Your task to perform on an android device: open sync settings in chrome Image 0: 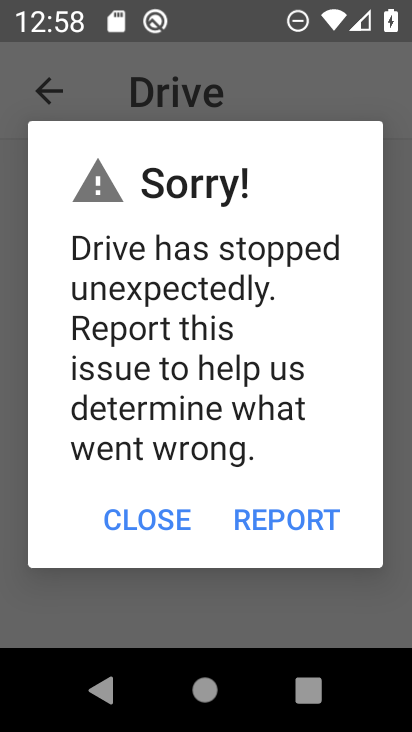
Step 0: press home button
Your task to perform on an android device: open sync settings in chrome Image 1: 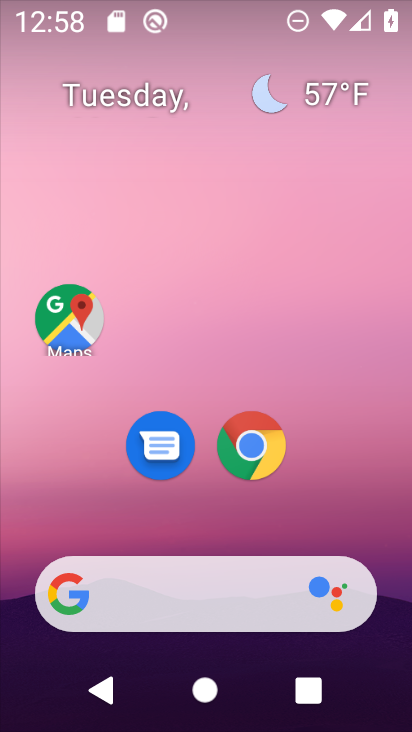
Step 1: drag from (369, 532) to (391, 202)
Your task to perform on an android device: open sync settings in chrome Image 2: 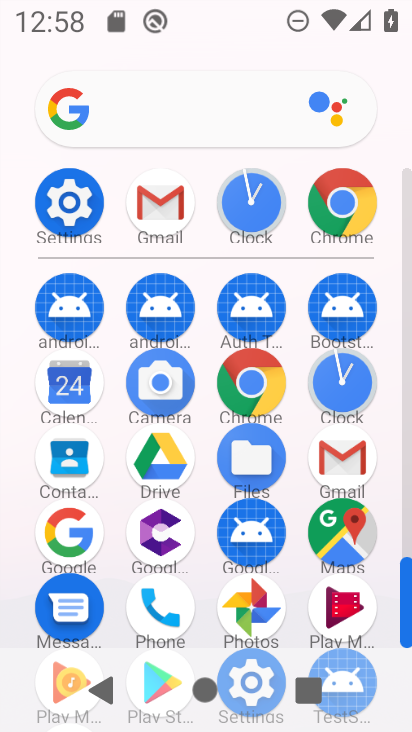
Step 2: click (249, 390)
Your task to perform on an android device: open sync settings in chrome Image 3: 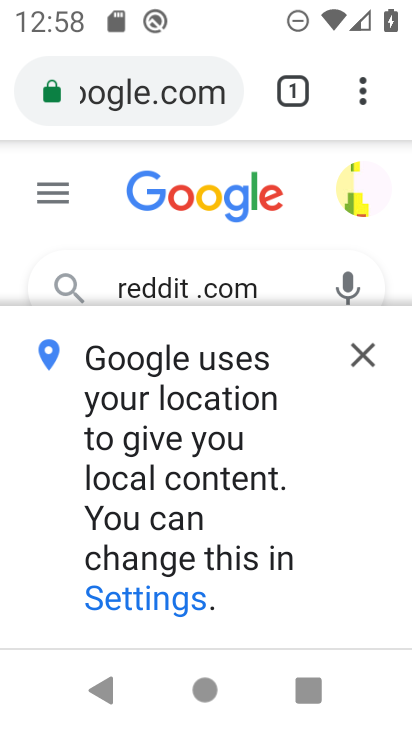
Step 3: click (360, 97)
Your task to perform on an android device: open sync settings in chrome Image 4: 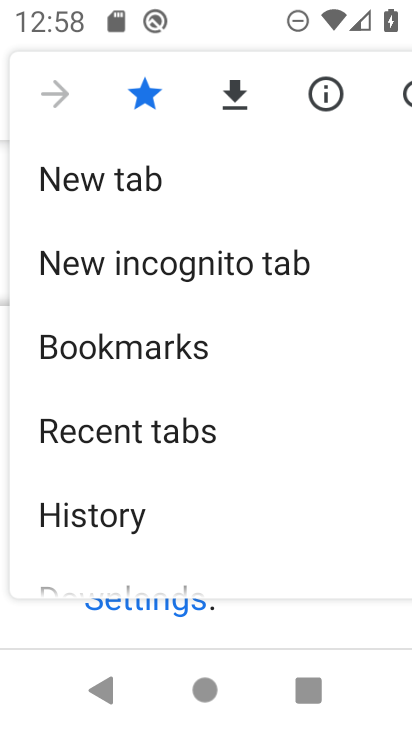
Step 4: drag from (353, 410) to (350, 305)
Your task to perform on an android device: open sync settings in chrome Image 5: 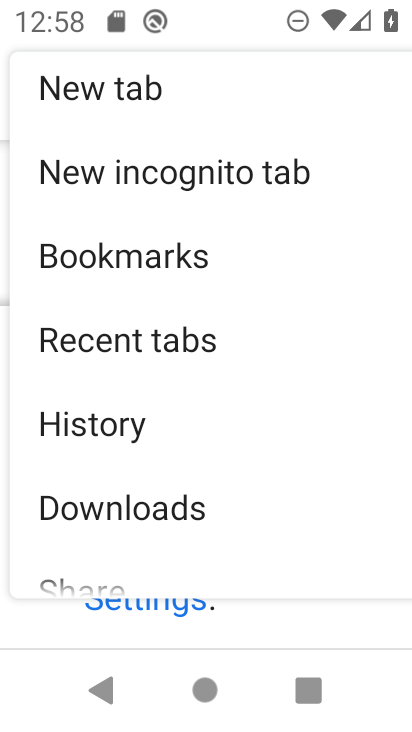
Step 5: drag from (333, 449) to (345, 330)
Your task to perform on an android device: open sync settings in chrome Image 6: 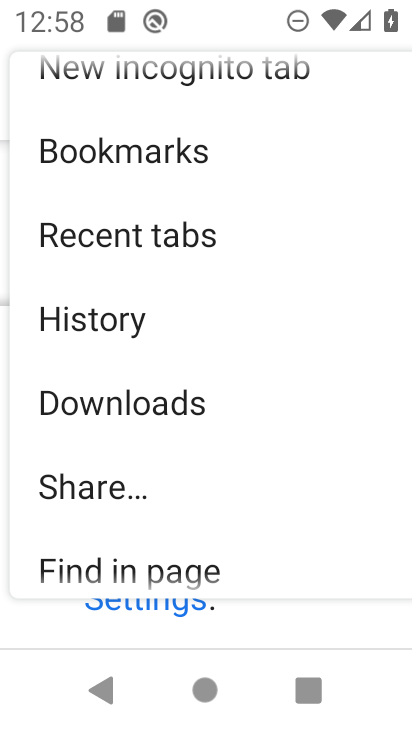
Step 6: drag from (313, 497) to (316, 383)
Your task to perform on an android device: open sync settings in chrome Image 7: 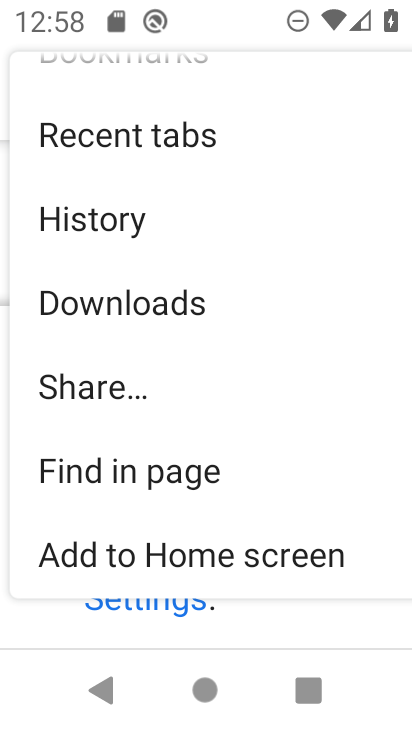
Step 7: drag from (299, 512) to (315, 347)
Your task to perform on an android device: open sync settings in chrome Image 8: 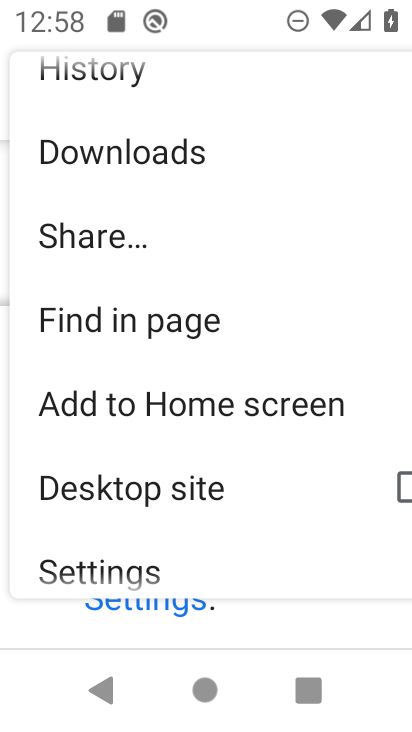
Step 8: drag from (290, 483) to (278, 324)
Your task to perform on an android device: open sync settings in chrome Image 9: 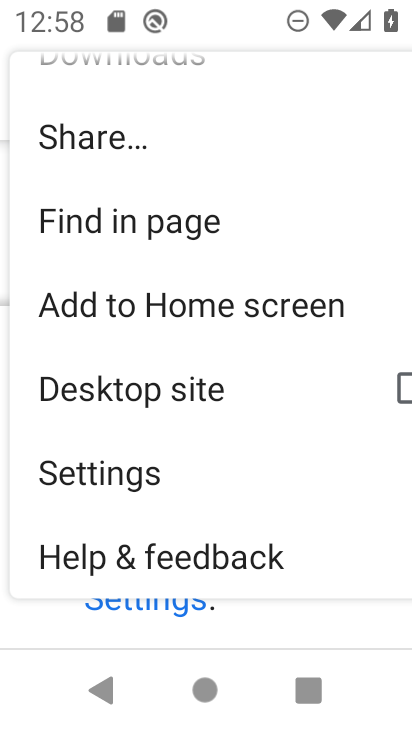
Step 9: click (144, 487)
Your task to perform on an android device: open sync settings in chrome Image 10: 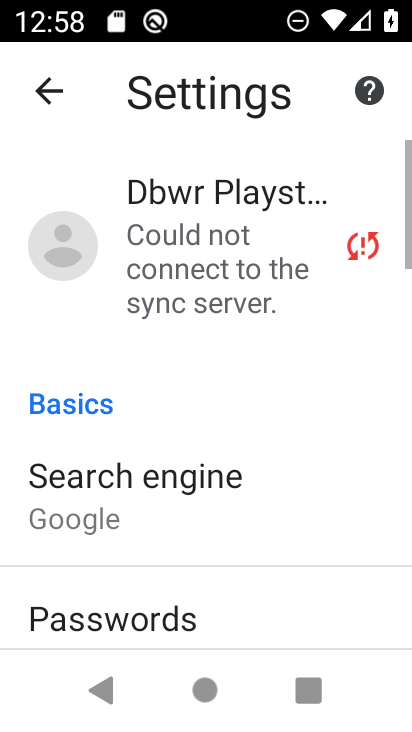
Step 10: drag from (313, 537) to (336, 419)
Your task to perform on an android device: open sync settings in chrome Image 11: 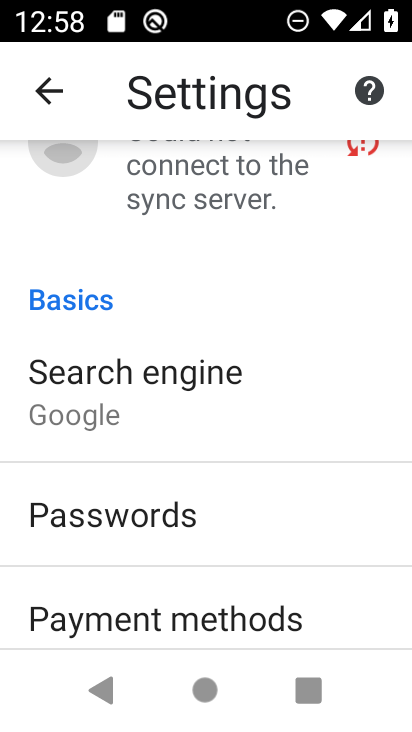
Step 11: drag from (326, 535) to (336, 439)
Your task to perform on an android device: open sync settings in chrome Image 12: 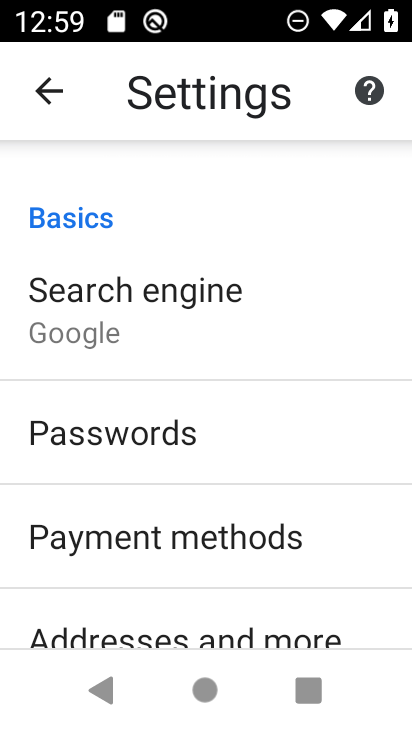
Step 12: drag from (353, 587) to (348, 475)
Your task to perform on an android device: open sync settings in chrome Image 13: 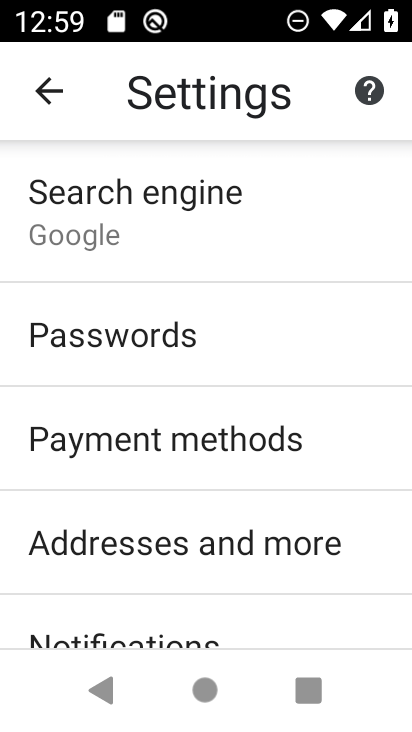
Step 13: drag from (353, 592) to (363, 492)
Your task to perform on an android device: open sync settings in chrome Image 14: 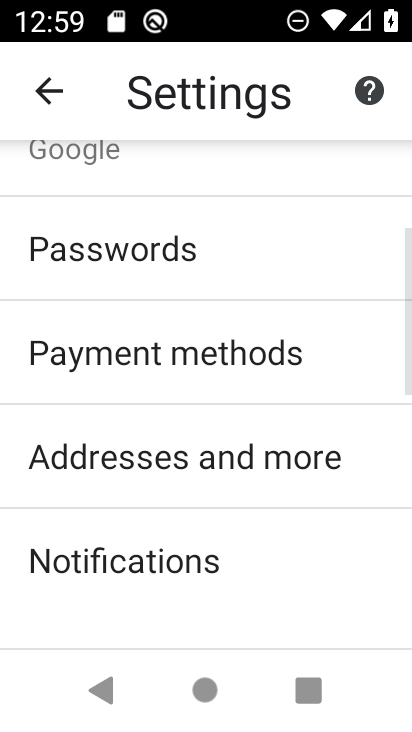
Step 14: drag from (355, 589) to (368, 488)
Your task to perform on an android device: open sync settings in chrome Image 15: 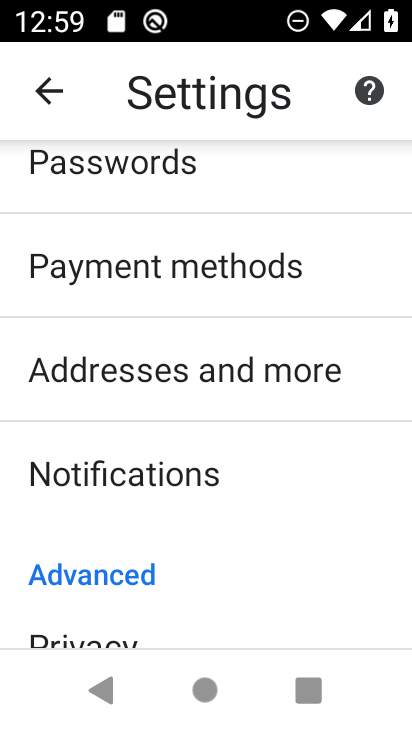
Step 15: drag from (366, 533) to (377, 424)
Your task to perform on an android device: open sync settings in chrome Image 16: 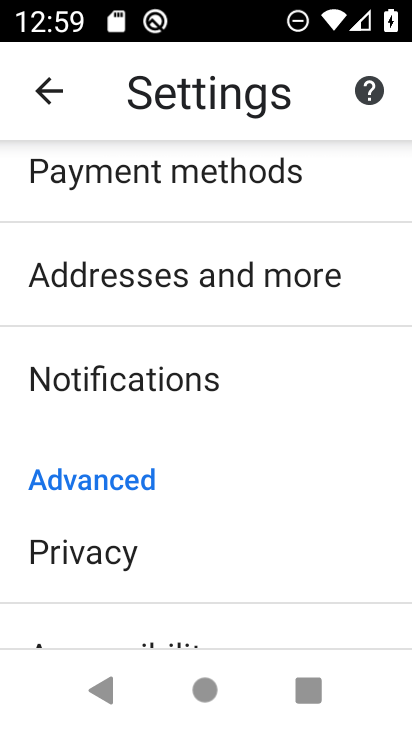
Step 16: drag from (356, 549) to (351, 441)
Your task to perform on an android device: open sync settings in chrome Image 17: 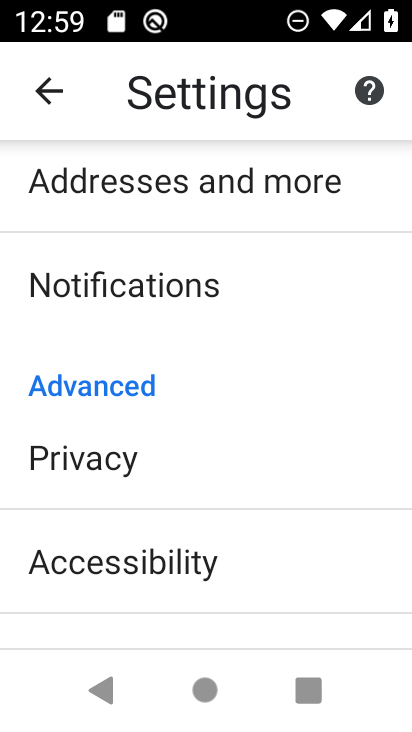
Step 17: drag from (364, 590) to (370, 468)
Your task to perform on an android device: open sync settings in chrome Image 18: 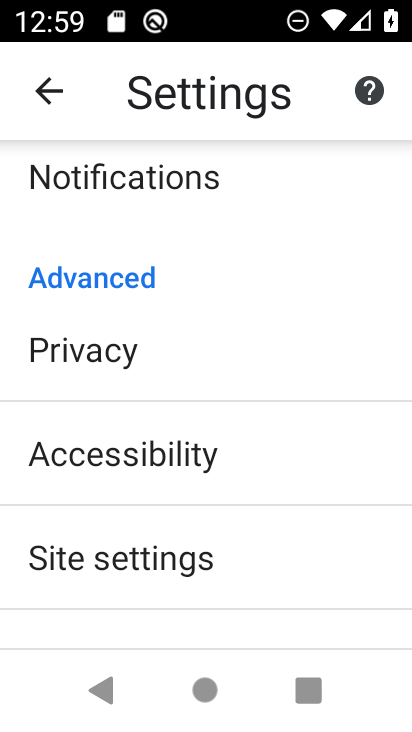
Step 18: drag from (349, 613) to (339, 476)
Your task to perform on an android device: open sync settings in chrome Image 19: 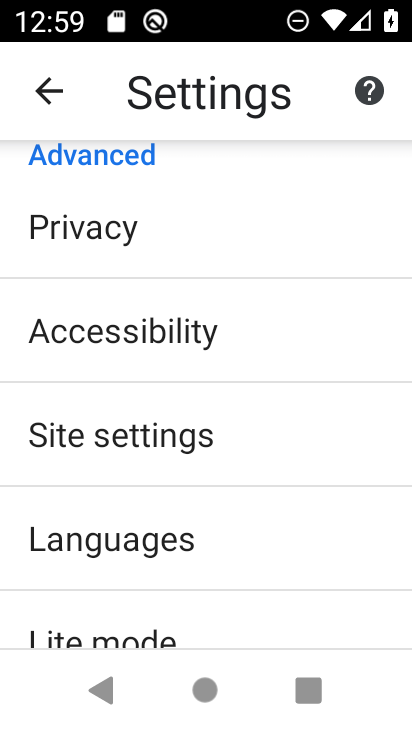
Step 19: click (289, 460)
Your task to perform on an android device: open sync settings in chrome Image 20: 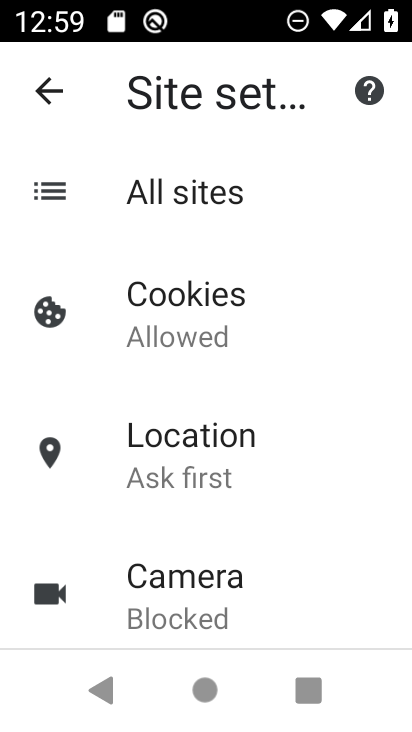
Step 20: drag from (354, 559) to (367, 451)
Your task to perform on an android device: open sync settings in chrome Image 21: 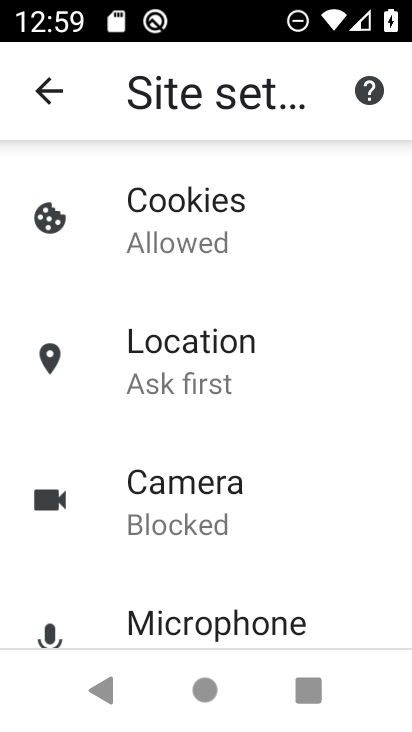
Step 21: drag from (362, 583) to (372, 473)
Your task to perform on an android device: open sync settings in chrome Image 22: 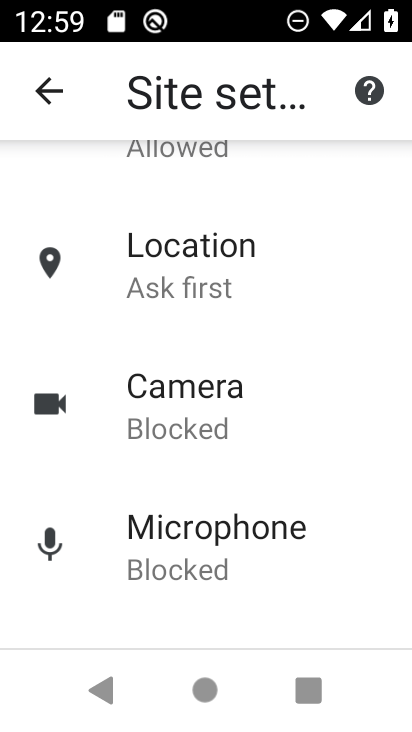
Step 22: drag from (372, 598) to (370, 478)
Your task to perform on an android device: open sync settings in chrome Image 23: 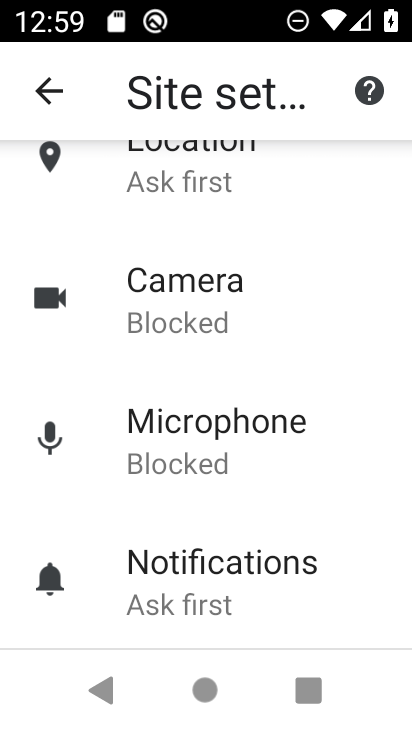
Step 23: drag from (359, 605) to (368, 483)
Your task to perform on an android device: open sync settings in chrome Image 24: 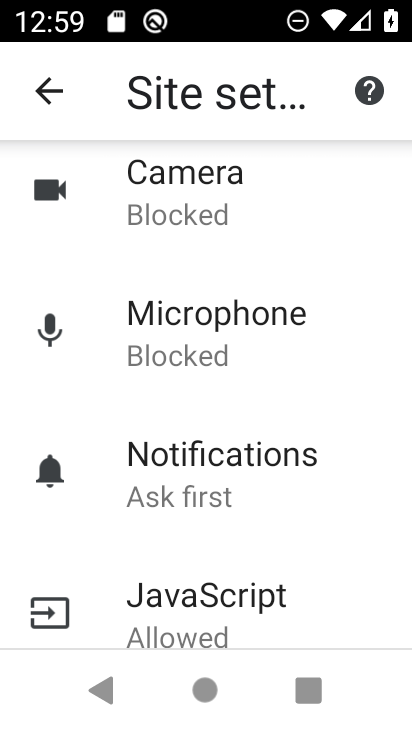
Step 24: drag from (359, 596) to (370, 487)
Your task to perform on an android device: open sync settings in chrome Image 25: 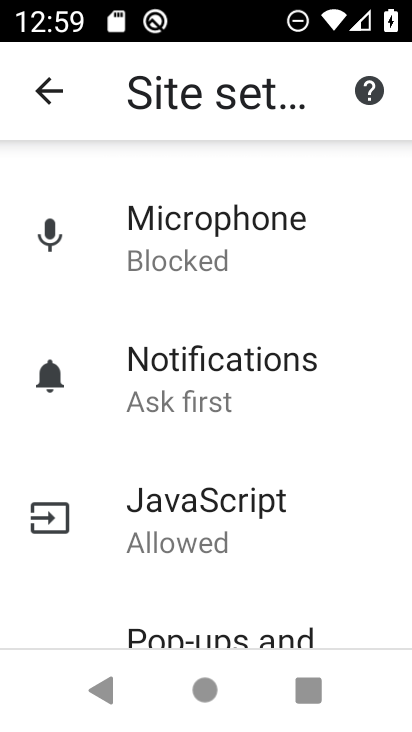
Step 25: drag from (372, 564) to (375, 468)
Your task to perform on an android device: open sync settings in chrome Image 26: 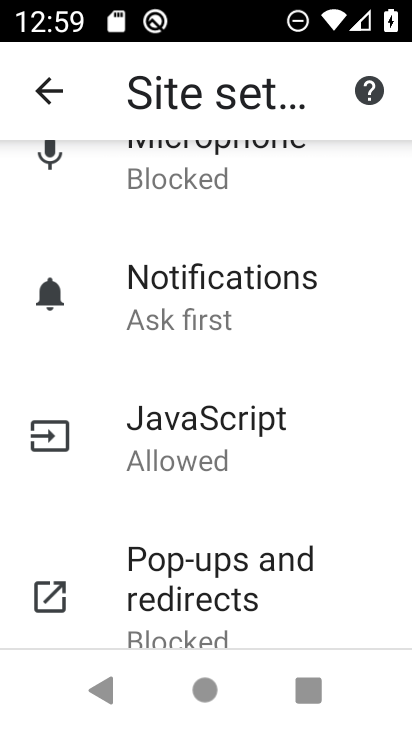
Step 26: drag from (376, 602) to (372, 485)
Your task to perform on an android device: open sync settings in chrome Image 27: 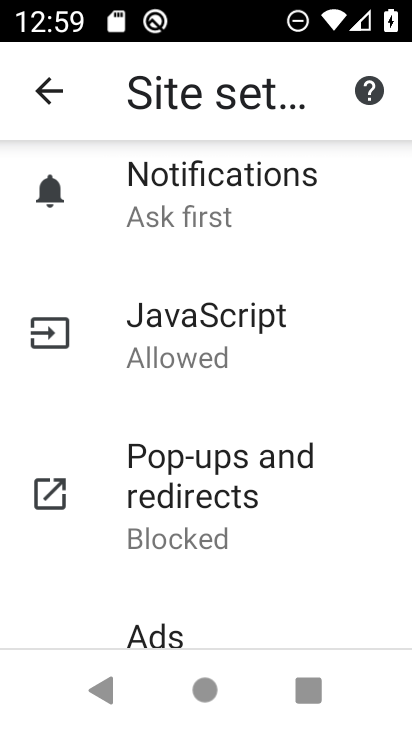
Step 27: drag from (357, 601) to (366, 486)
Your task to perform on an android device: open sync settings in chrome Image 28: 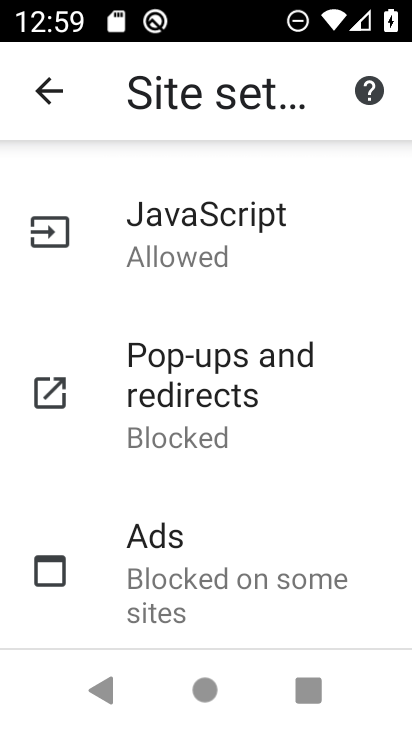
Step 28: drag from (370, 603) to (363, 473)
Your task to perform on an android device: open sync settings in chrome Image 29: 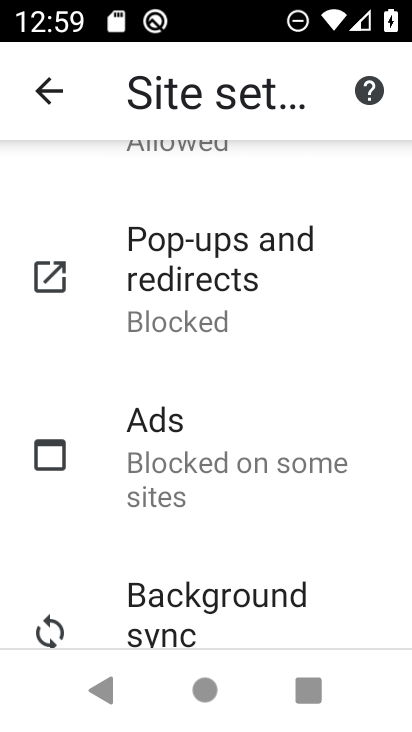
Step 29: drag from (356, 599) to (364, 481)
Your task to perform on an android device: open sync settings in chrome Image 30: 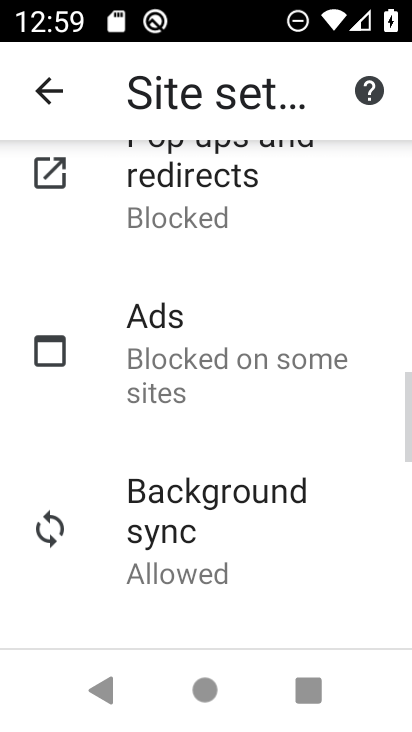
Step 30: click (332, 555)
Your task to perform on an android device: open sync settings in chrome Image 31: 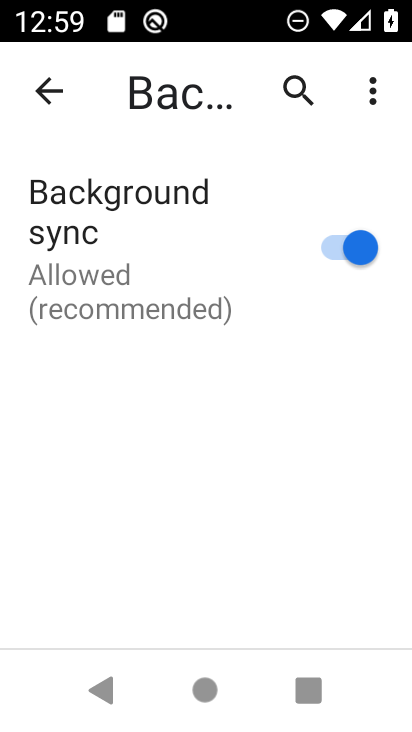
Step 31: task complete